Your task to perform on an android device: add a contact Image 0: 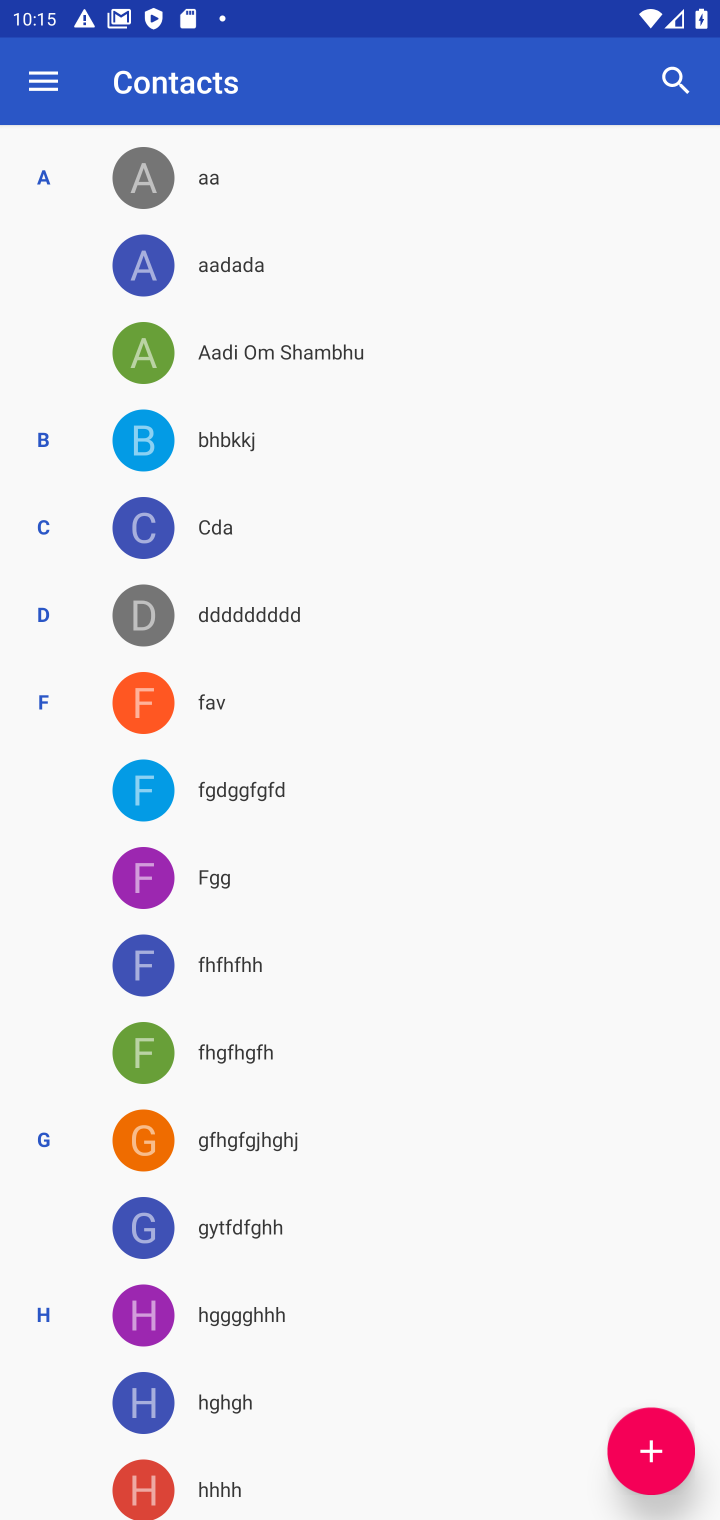
Step 0: press home button
Your task to perform on an android device: add a contact Image 1: 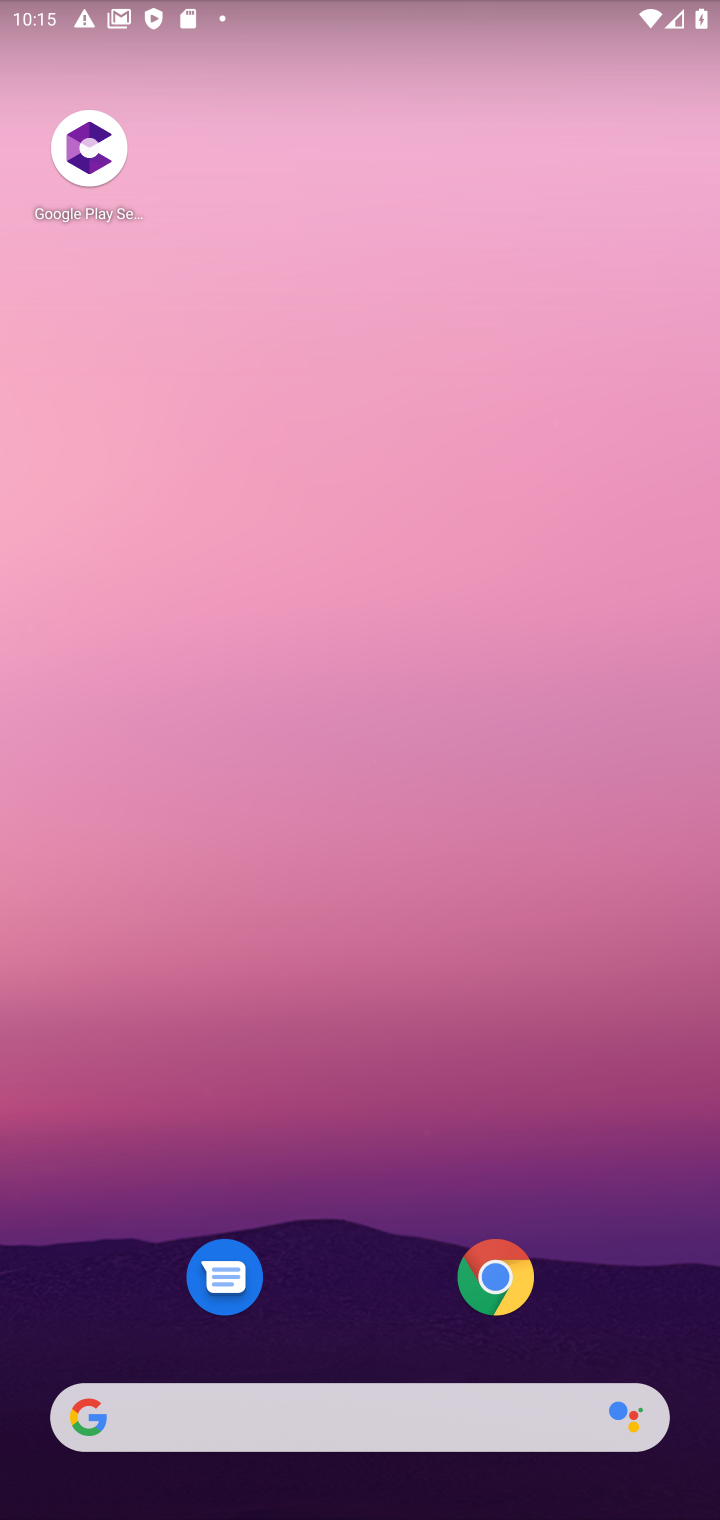
Step 1: drag from (466, 1432) to (329, 197)
Your task to perform on an android device: add a contact Image 2: 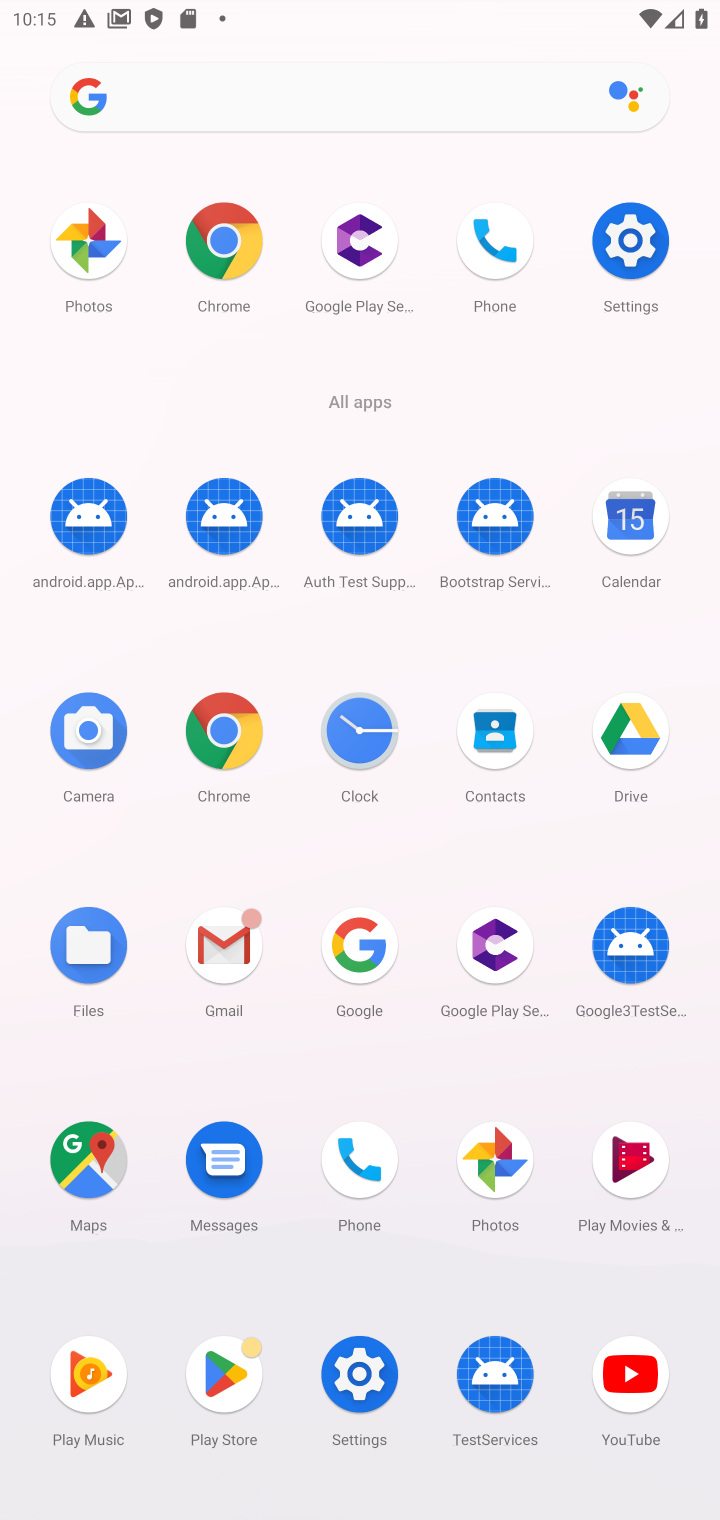
Step 2: click (502, 727)
Your task to perform on an android device: add a contact Image 3: 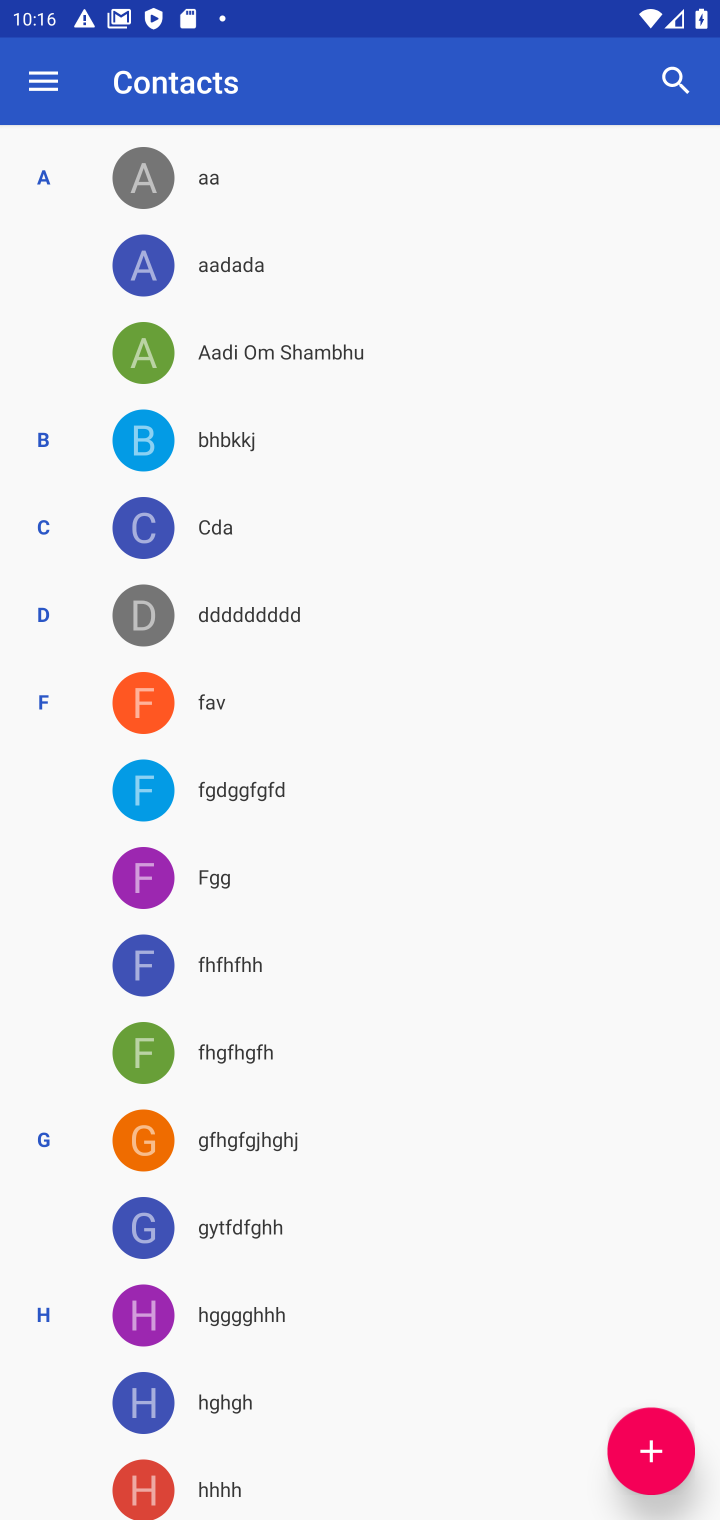
Step 3: click (642, 1455)
Your task to perform on an android device: add a contact Image 4: 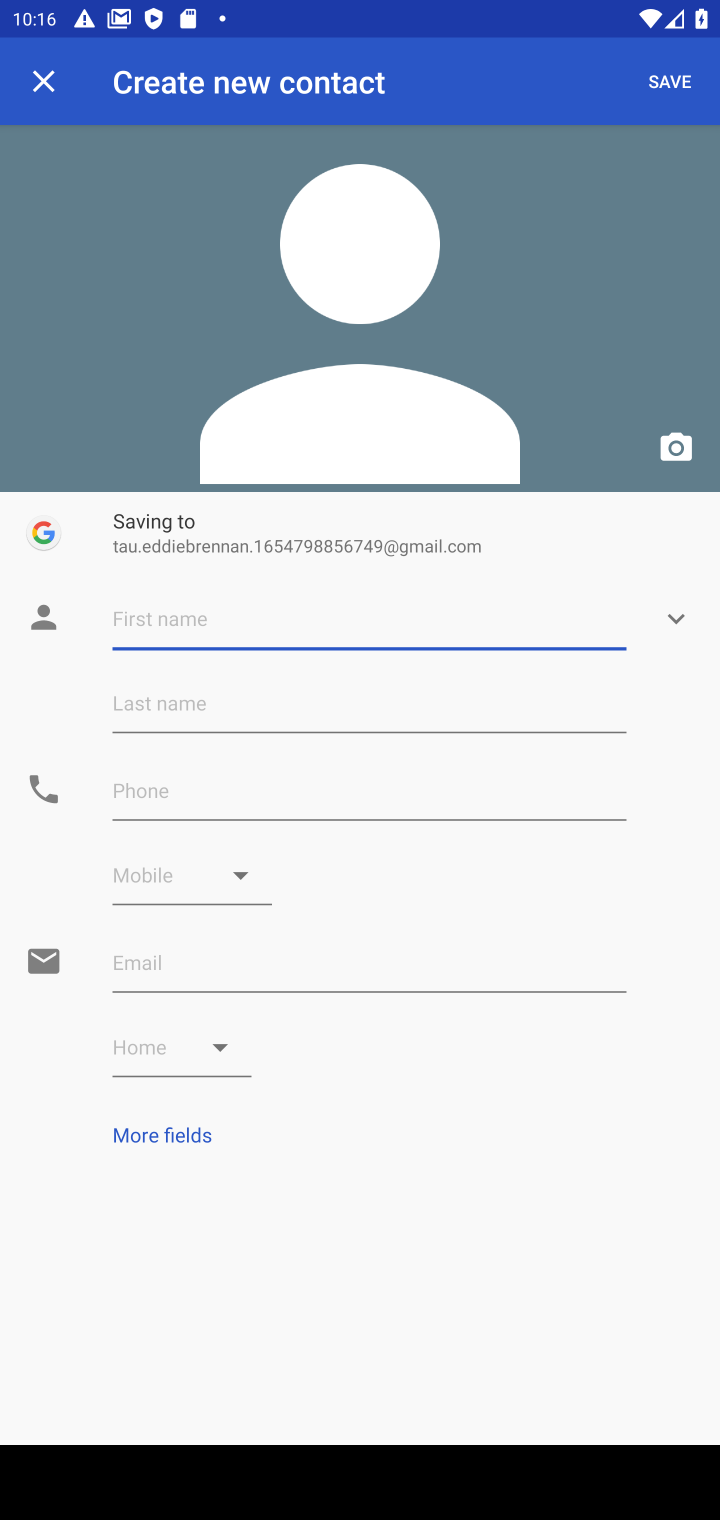
Step 4: type "fsds"
Your task to perform on an android device: add a contact Image 5: 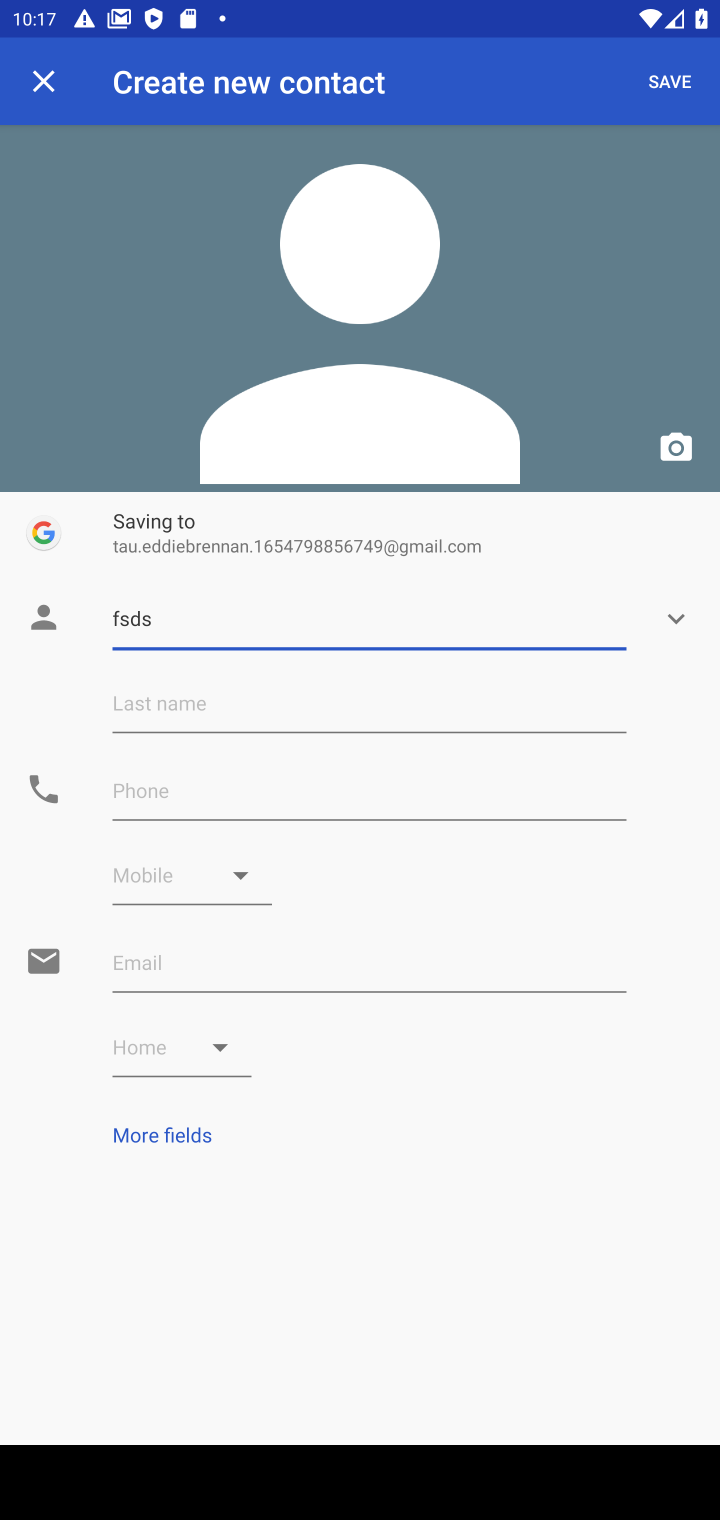
Step 5: click (333, 802)
Your task to perform on an android device: add a contact Image 6: 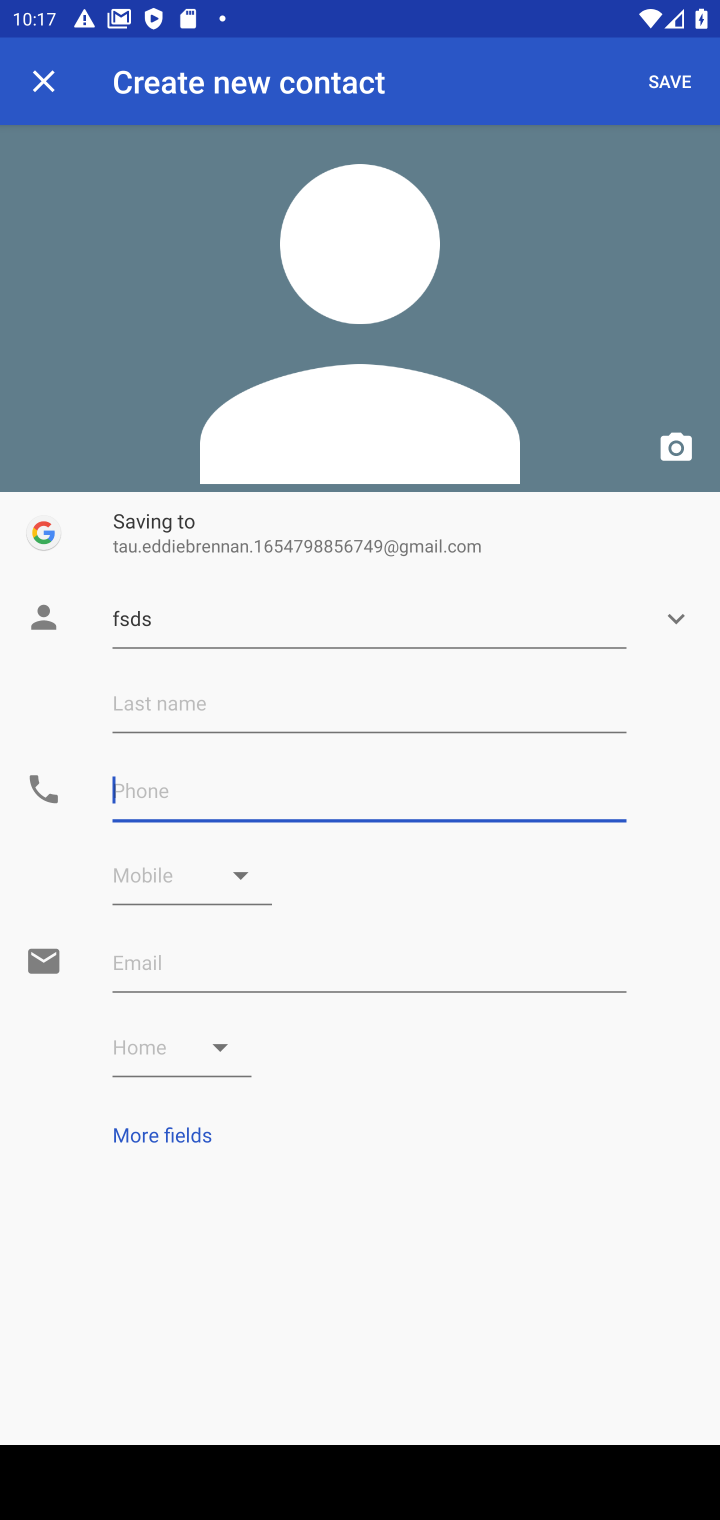
Step 6: type "35345"
Your task to perform on an android device: add a contact Image 7: 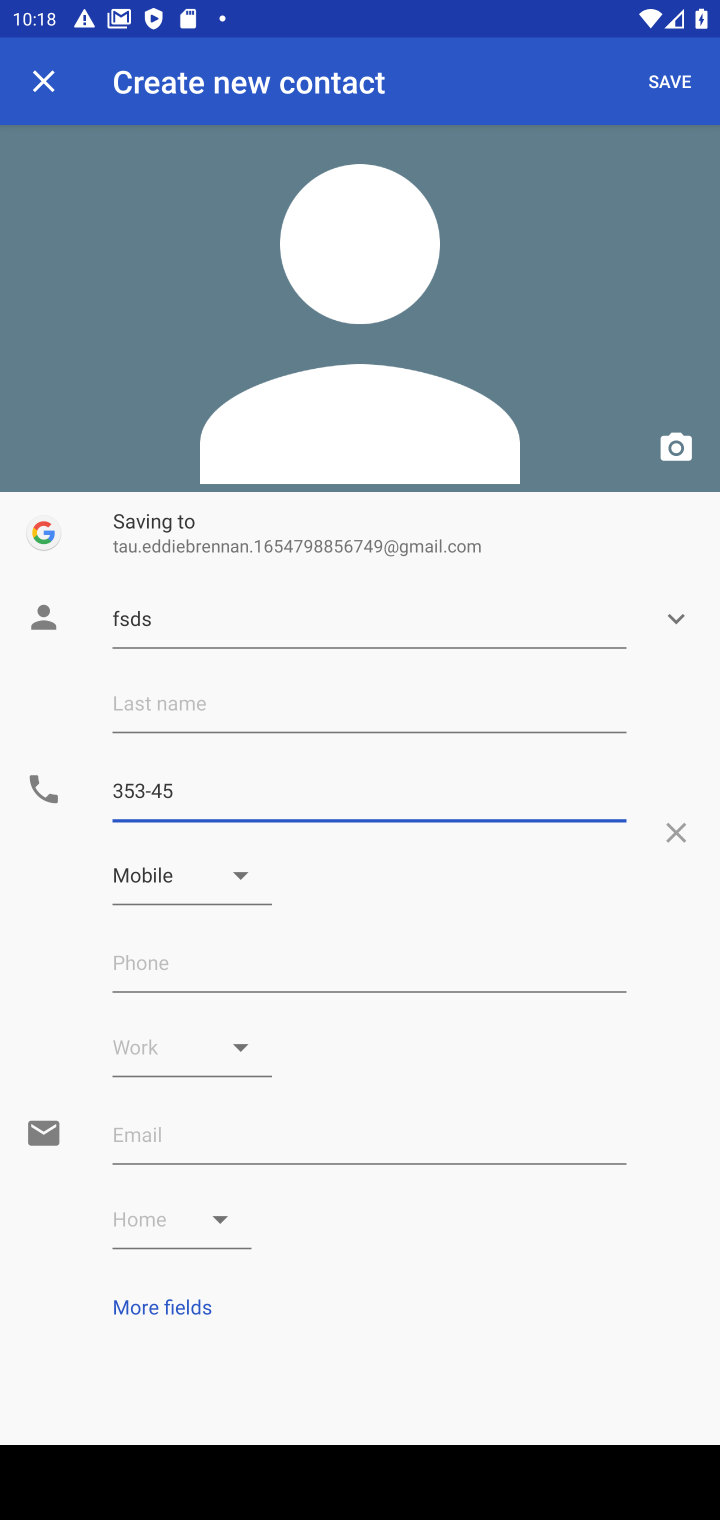
Step 7: click (664, 91)
Your task to perform on an android device: add a contact Image 8: 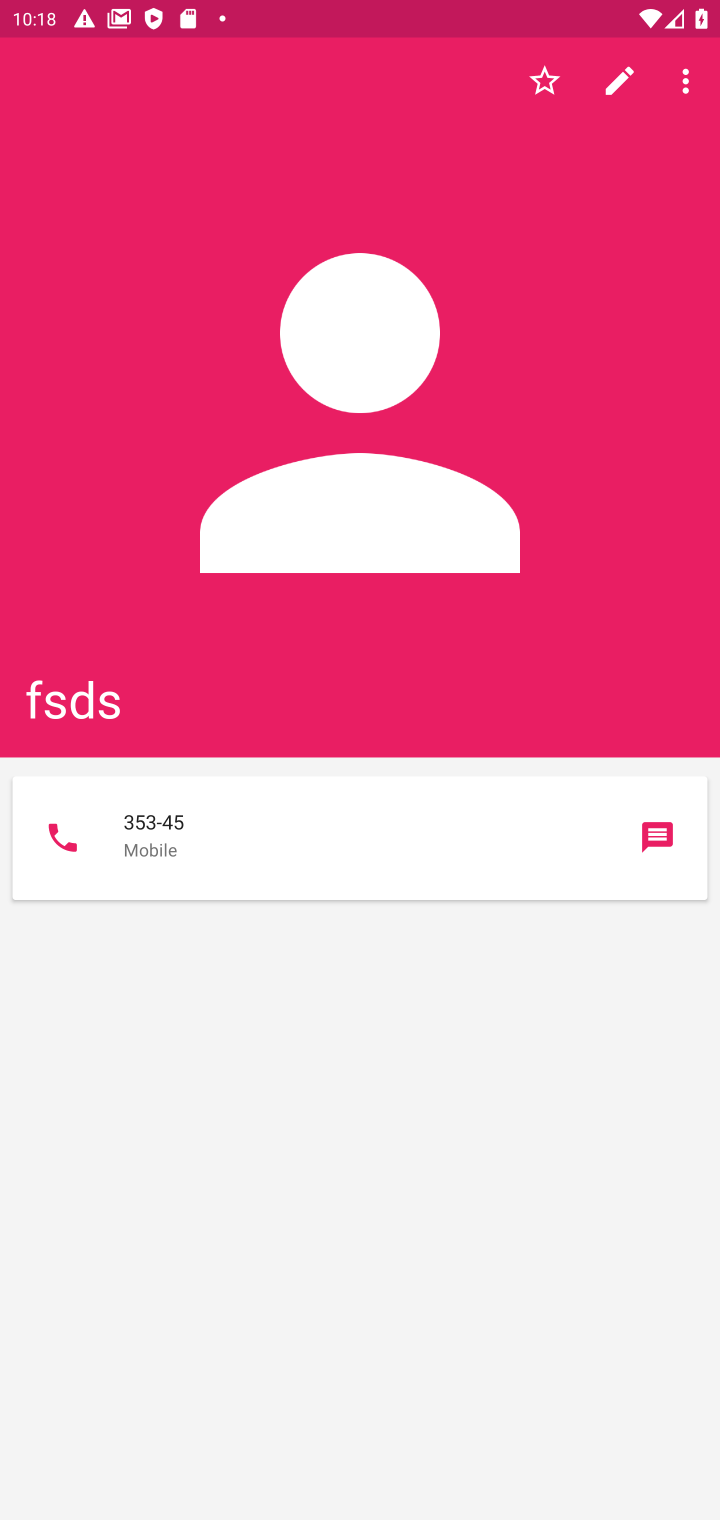
Step 8: task complete